Your task to perform on an android device: open app "Skype" Image 0: 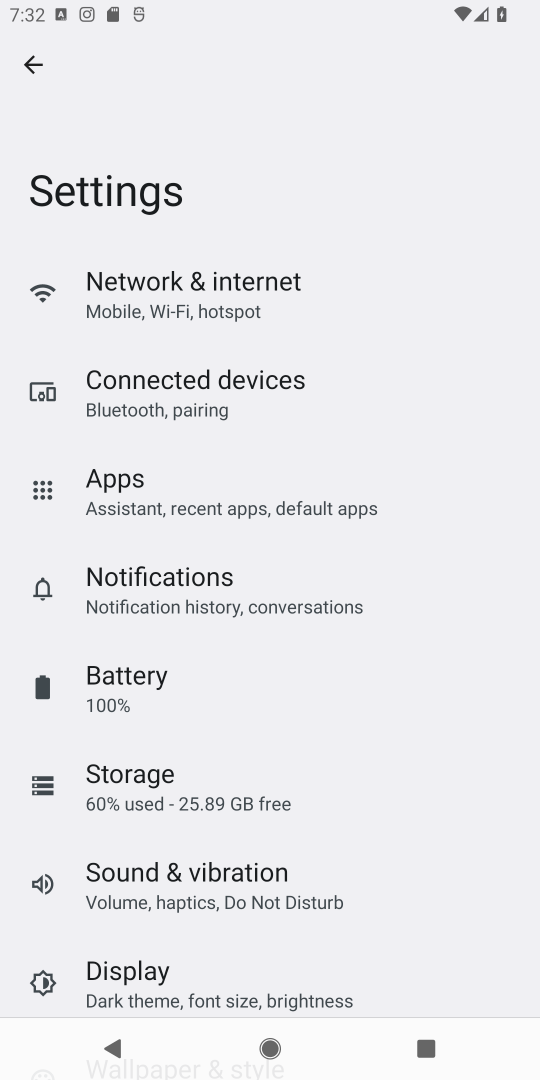
Step 0: press home button
Your task to perform on an android device: open app "Skype" Image 1: 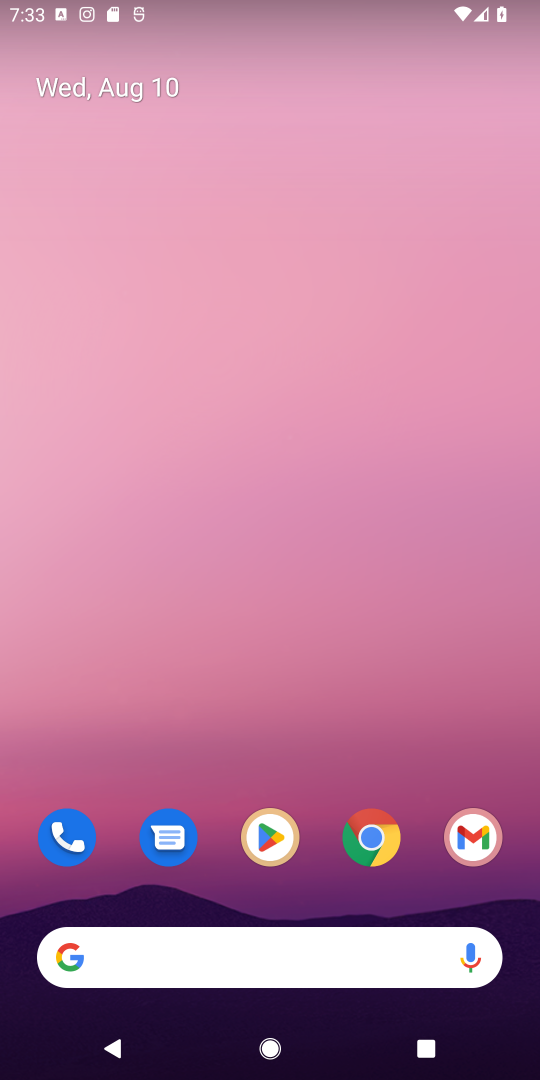
Step 1: click (275, 840)
Your task to perform on an android device: open app "Skype" Image 2: 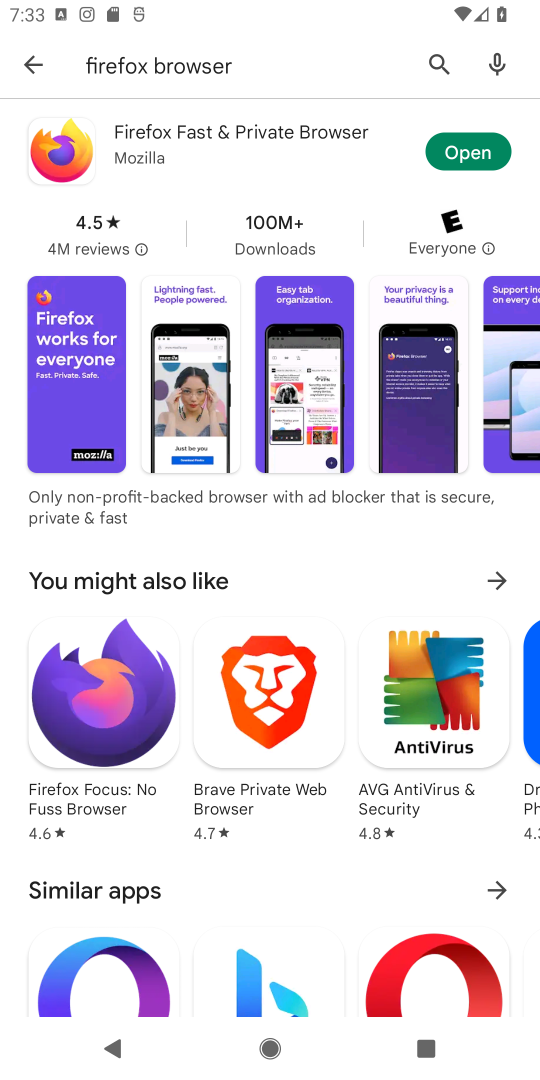
Step 2: click (438, 52)
Your task to perform on an android device: open app "Skype" Image 3: 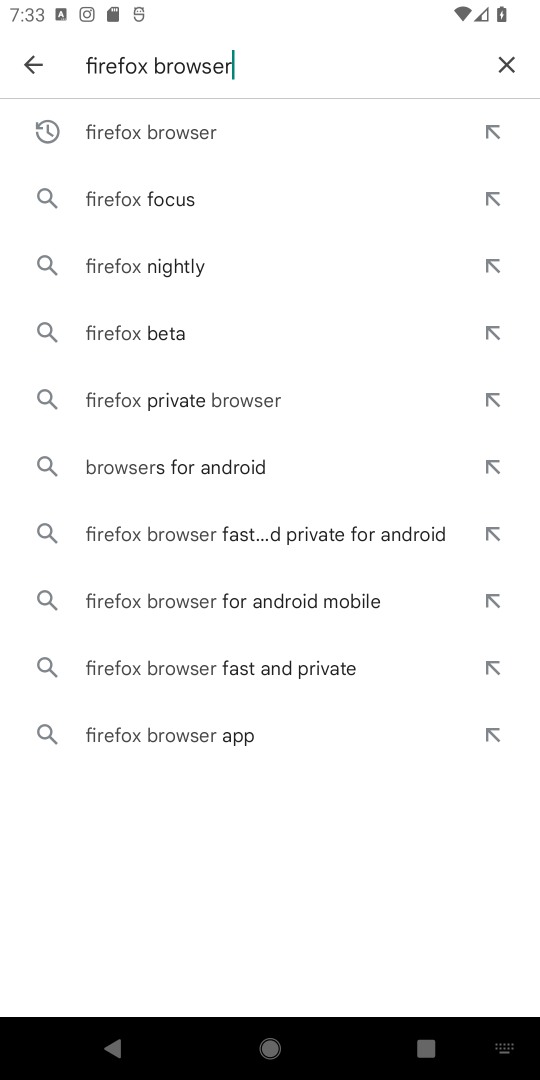
Step 3: click (506, 59)
Your task to perform on an android device: open app "Skype" Image 4: 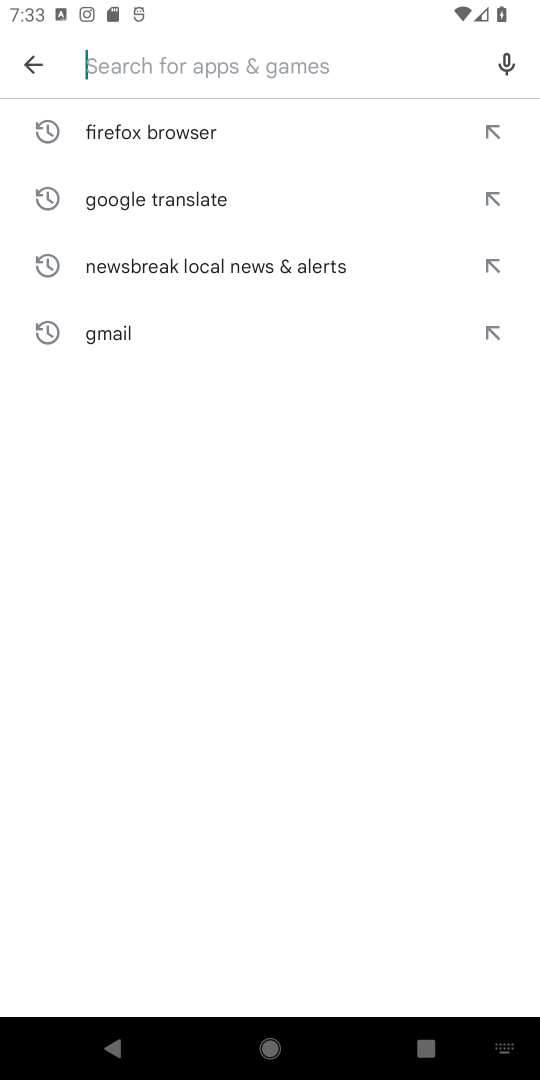
Step 4: type "Skype"
Your task to perform on an android device: open app "Skype" Image 5: 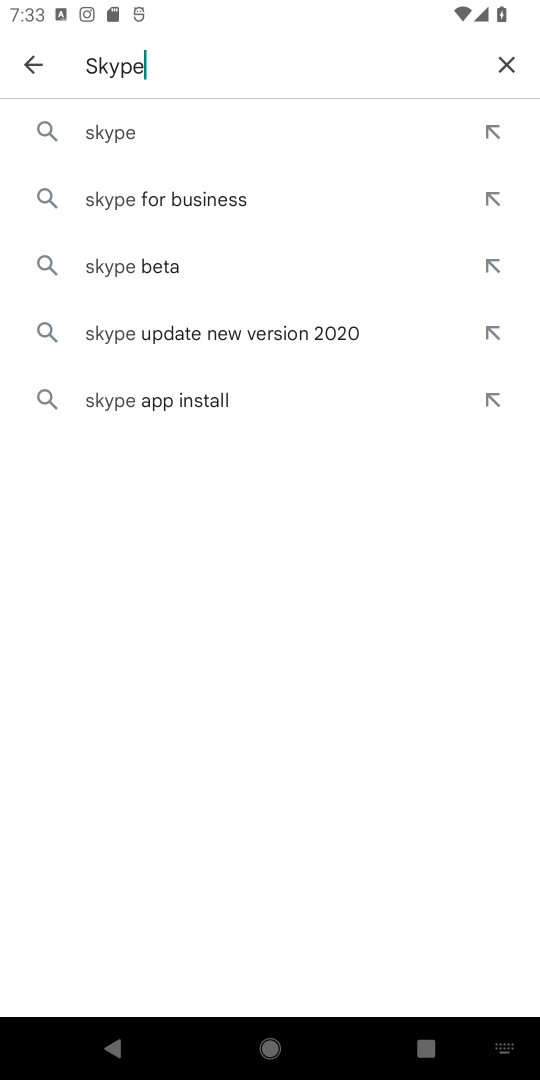
Step 5: click (130, 133)
Your task to perform on an android device: open app "Skype" Image 6: 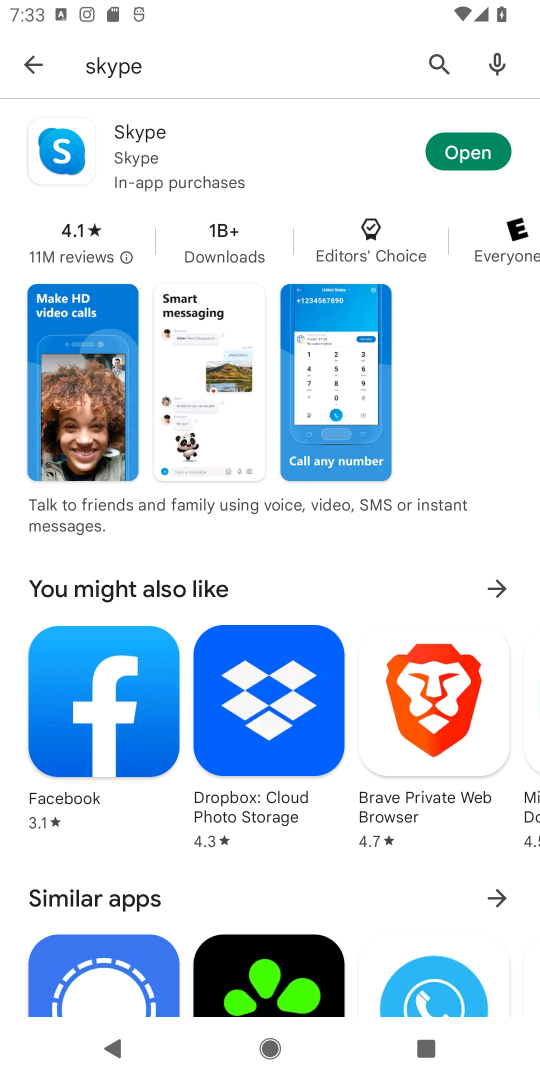
Step 6: click (504, 160)
Your task to perform on an android device: open app "Skype" Image 7: 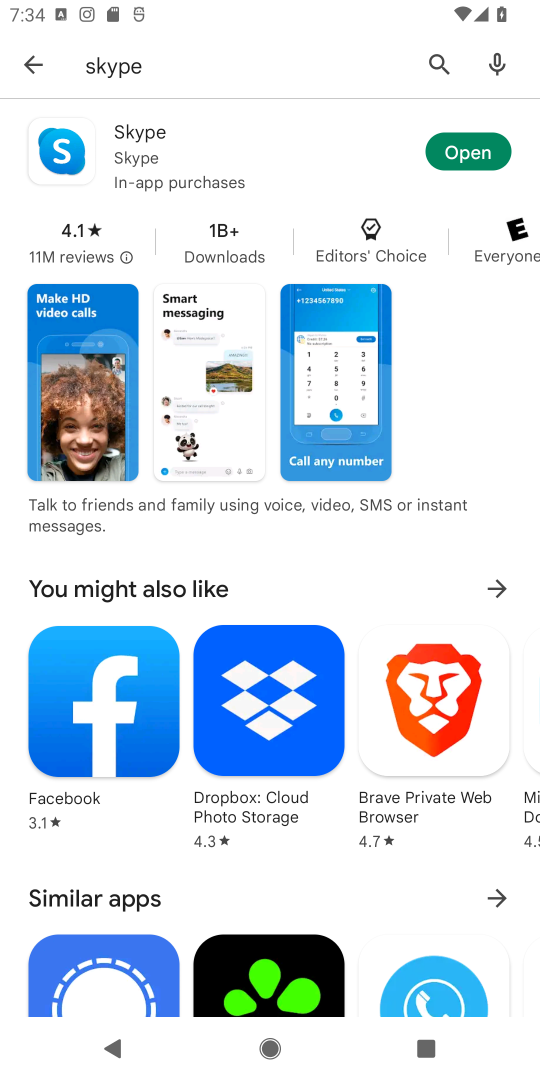
Step 7: click (478, 151)
Your task to perform on an android device: open app "Skype" Image 8: 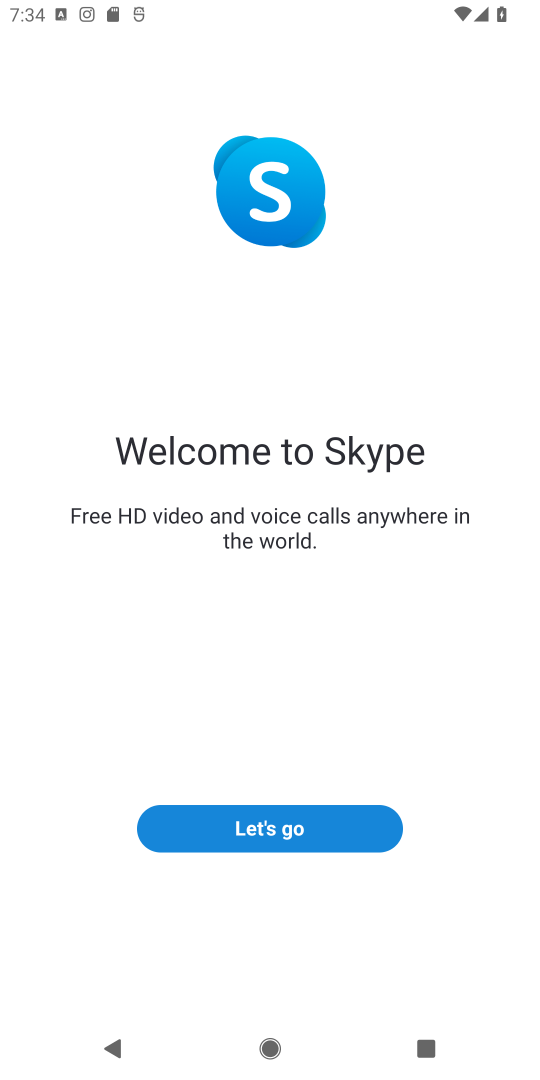
Step 8: task complete